Your task to perform on an android device: turn off translation in the chrome app Image 0: 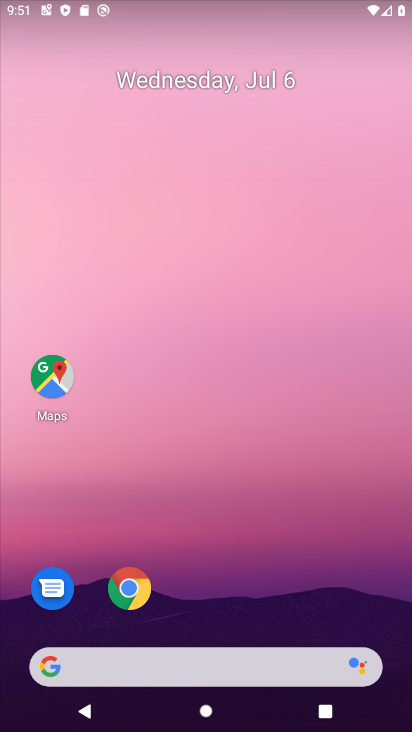
Step 0: drag from (221, 626) to (359, 25)
Your task to perform on an android device: turn off translation in the chrome app Image 1: 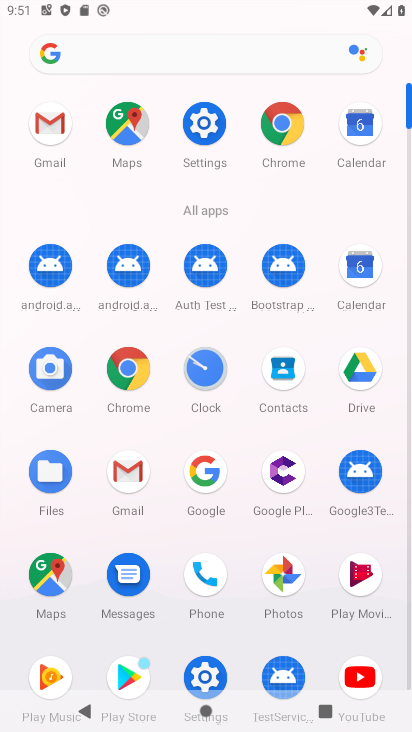
Step 1: click (287, 112)
Your task to perform on an android device: turn off translation in the chrome app Image 2: 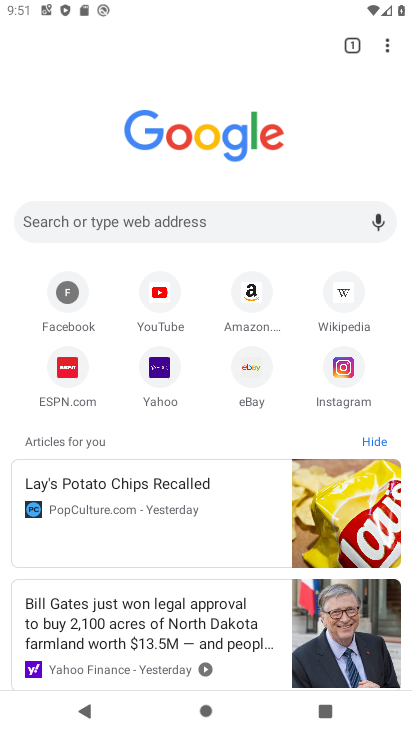
Step 2: drag from (388, 45) to (233, 383)
Your task to perform on an android device: turn off translation in the chrome app Image 3: 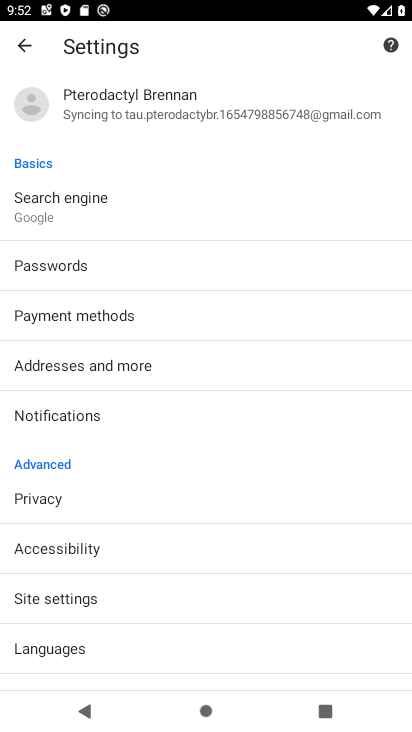
Step 3: click (79, 641)
Your task to perform on an android device: turn off translation in the chrome app Image 4: 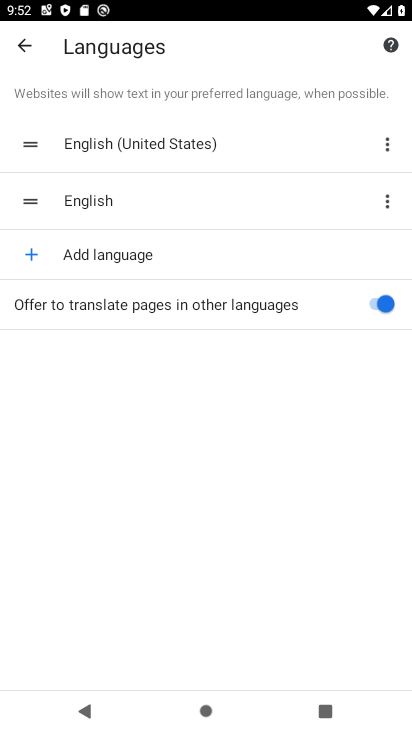
Step 4: click (376, 298)
Your task to perform on an android device: turn off translation in the chrome app Image 5: 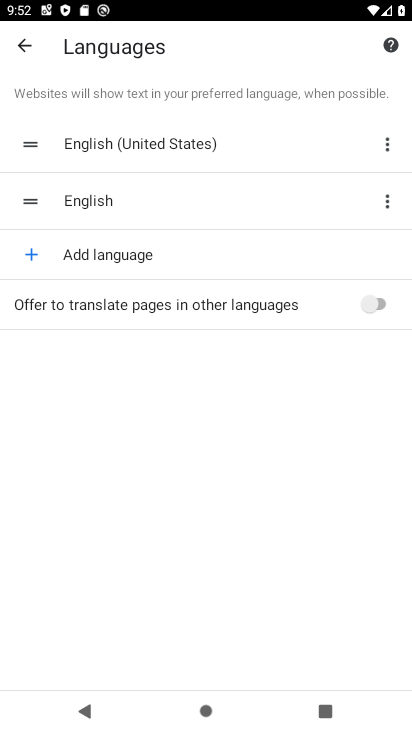
Step 5: task complete